Your task to perform on an android device: toggle pop-ups in chrome Image 0: 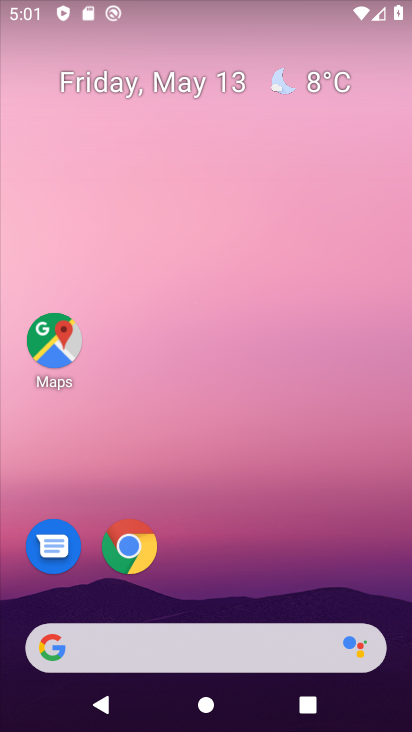
Step 0: click (127, 543)
Your task to perform on an android device: toggle pop-ups in chrome Image 1: 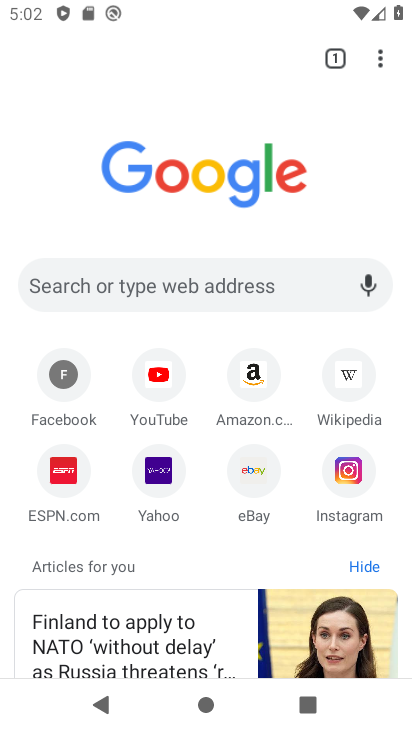
Step 1: drag from (383, 64) to (262, 497)
Your task to perform on an android device: toggle pop-ups in chrome Image 2: 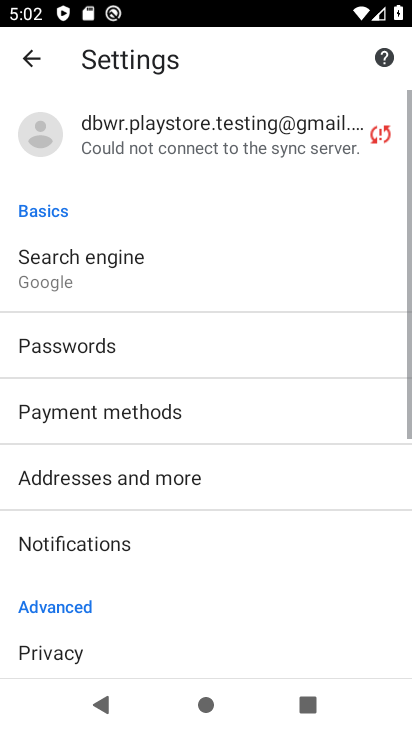
Step 2: drag from (191, 621) to (275, 323)
Your task to perform on an android device: toggle pop-ups in chrome Image 3: 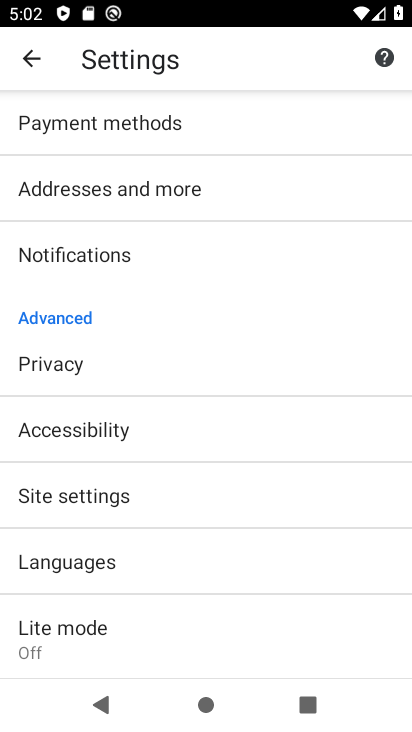
Step 3: click (145, 478)
Your task to perform on an android device: toggle pop-ups in chrome Image 4: 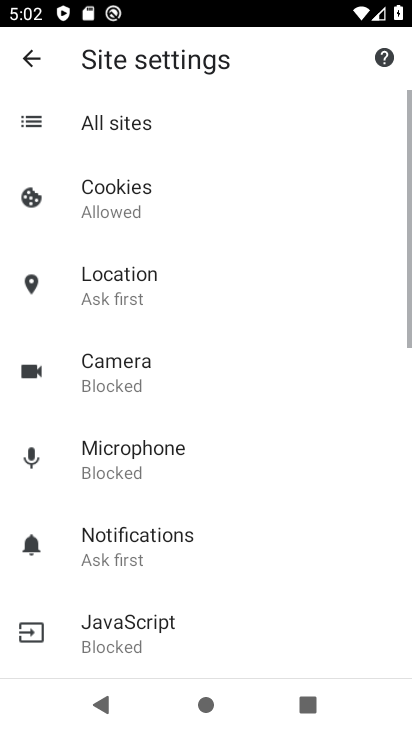
Step 4: drag from (165, 600) to (250, 271)
Your task to perform on an android device: toggle pop-ups in chrome Image 5: 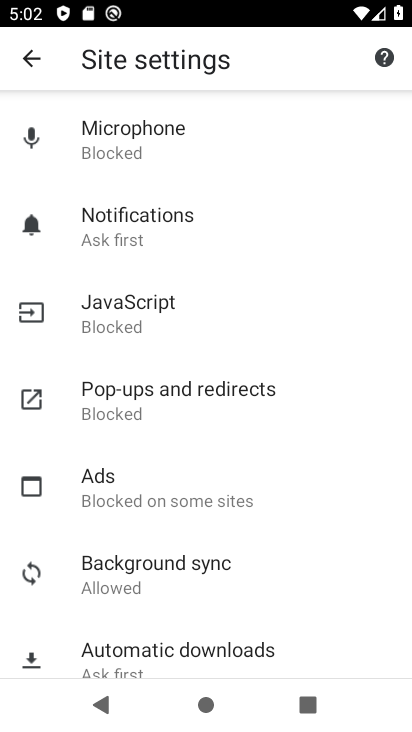
Step 5: click (224, 380)
Your task to perform on an android device: toggle pop-ups in chrome Image 6: 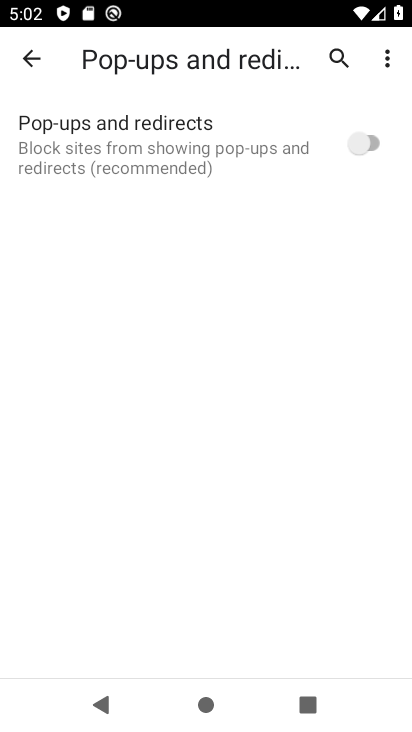
Step 6: click (378, 137)
Your task to perform on an android device: toggle pop-ups in chrome Image 7: 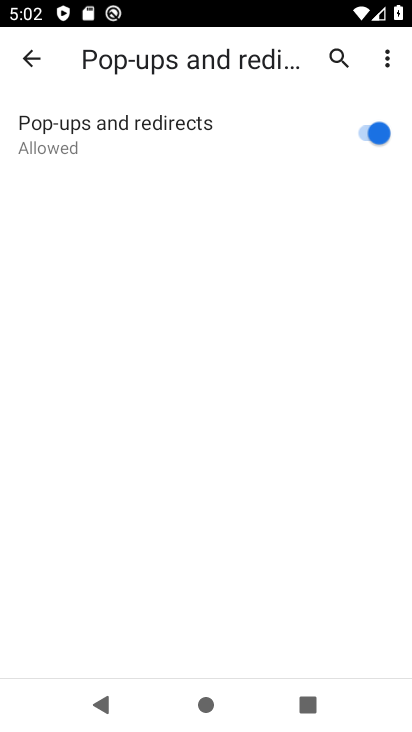
Step 7: task complete